Your task to perform on an android device: turn off location history Image 0: 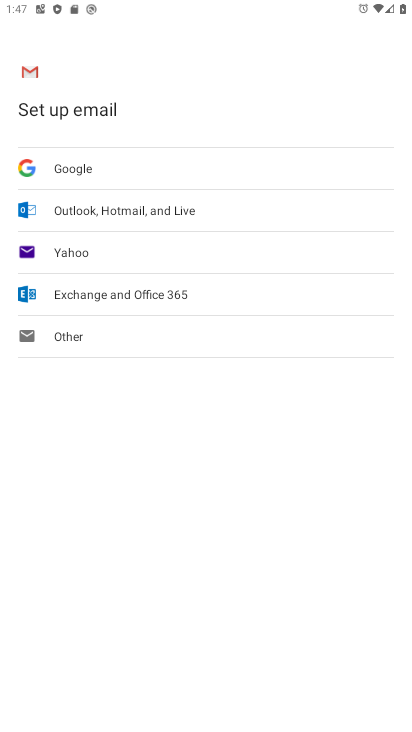
Step 0: press home button
Your task to perform on an android device: turn off location history Image 1: 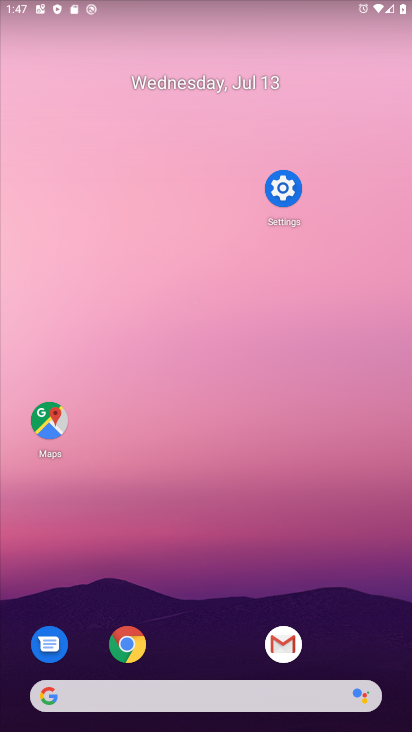
Step 1: click (281, 207)
Your task to perform on an android device: turn off location history Image 2: 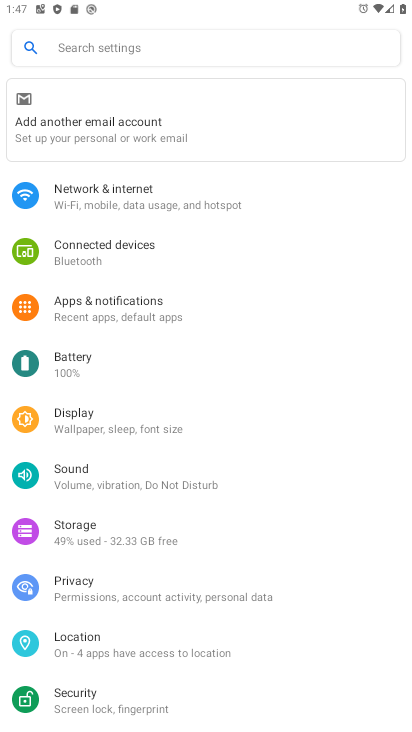
Step 2: click (80, 40)
Your task to perform on an android device: turn off location history Image 3: 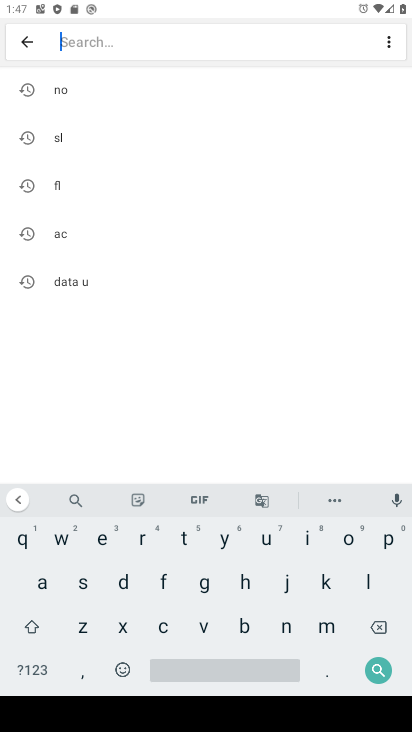
Step 3: click (365, 585)
Your task to perform on an android device: turn off location history Image 4: 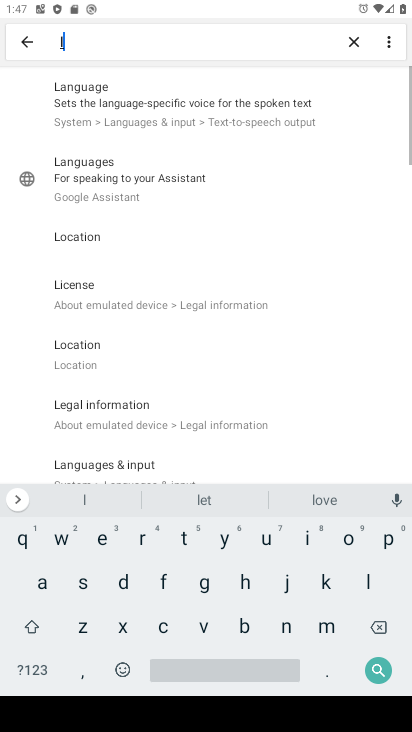
Step 4: click (340, 543)
Your task to perform on an android device: turn off location history Image 5: 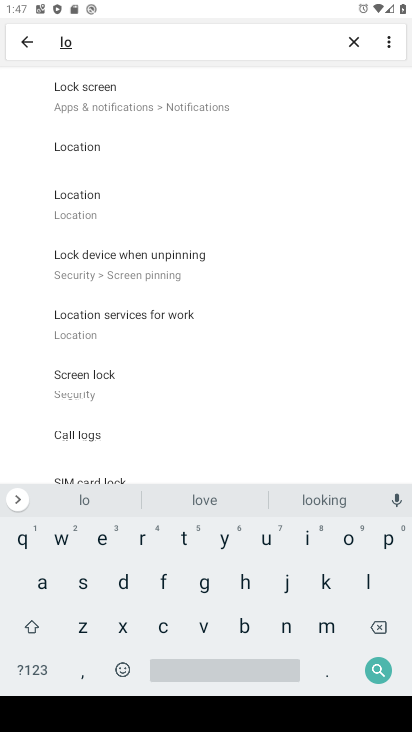
Step 5: click (110, 207)
Your task to perform on an android device: turn off location history Image 6: 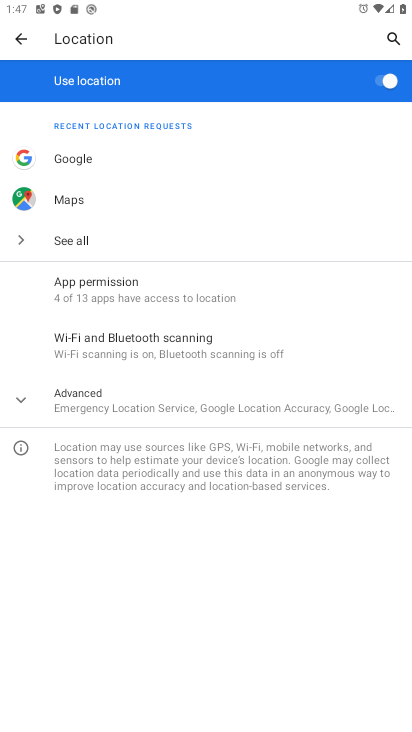
Step 6: click (372, 77)
Your task to perform on an android device: turn off location history Image 7: 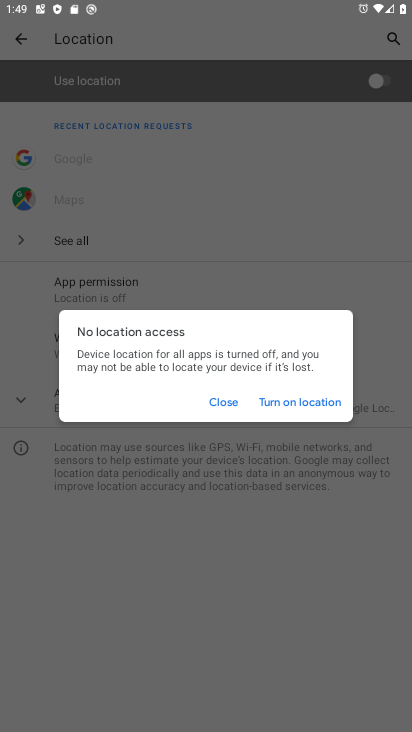
Step 7: task complete